Your task to perform on an android device: see creations saved in the google photos Image 0: 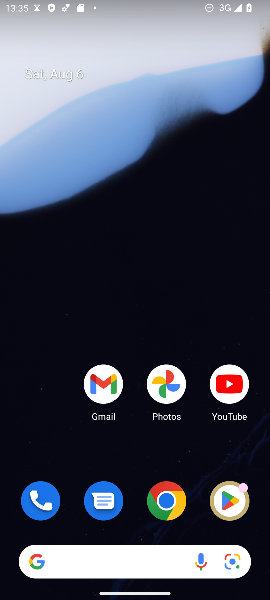
Step 0: click (166, 385)
Your task to perform on an android device: see creations saved in the google photos Image 1: 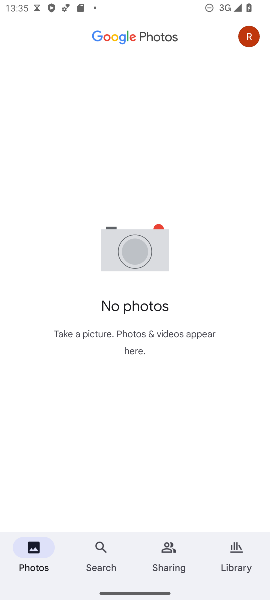
Step 1: click (103, 557)
Your task to perform on an android device: see creations saved in the google photos Image 2: 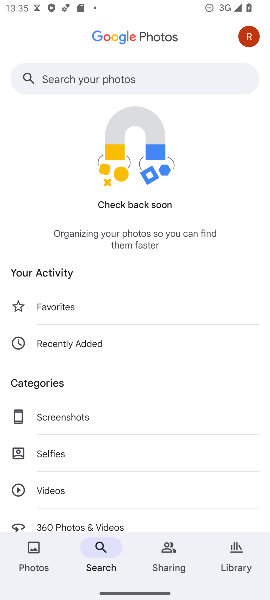
Step 2: drag from (65, 491) to (78, 307)
Your task to perform on an android device: see creations saved in the google photos Image 3: 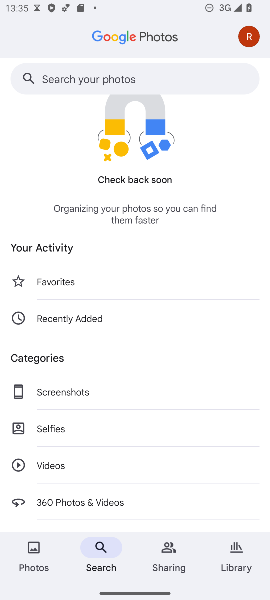
Step 3: drag from (94, 380) to (124, 159)
Your task to perform on an android device: see creations saved in the google photos Image 4: 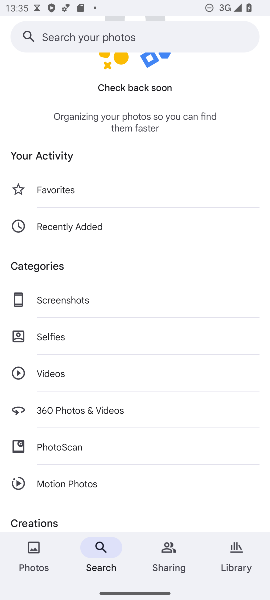
Step 4: drag from (98, 488) to (107, 274)
Your task to perform on an android device: see creations saved in the google photos Image 5: 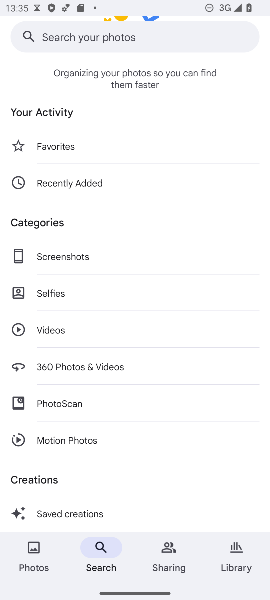
Step 5: click (58, 514)
Your task to perform on an android device: see creations saved in the google photos Image 6: 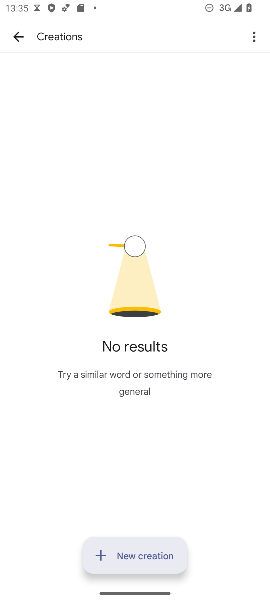
Step 6: task complete